Your task to perform on an android device: change the clock style Image 0: 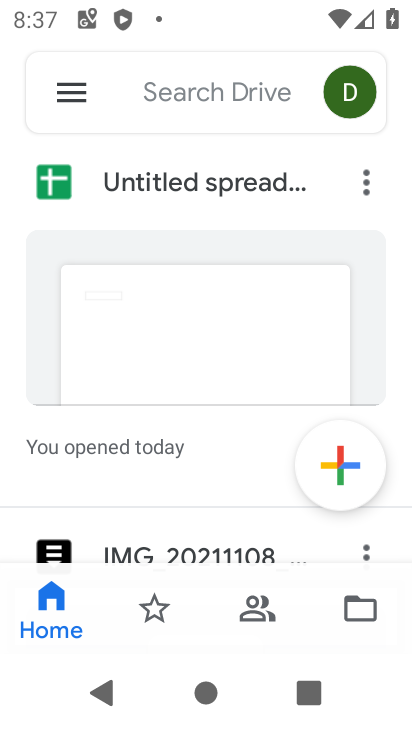
Step 0: press home button
Your task to perform on an android device: change the clock style Image 1: 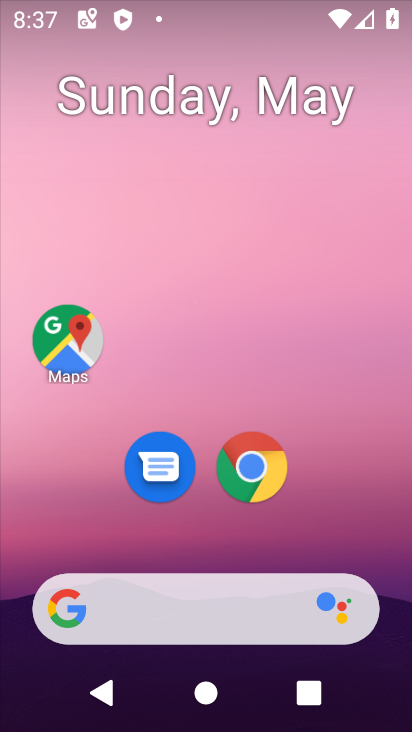
Step 1: drag from (203, 536) to (254, 195)
Your task to perform on an android device: change the clock style Image 2: 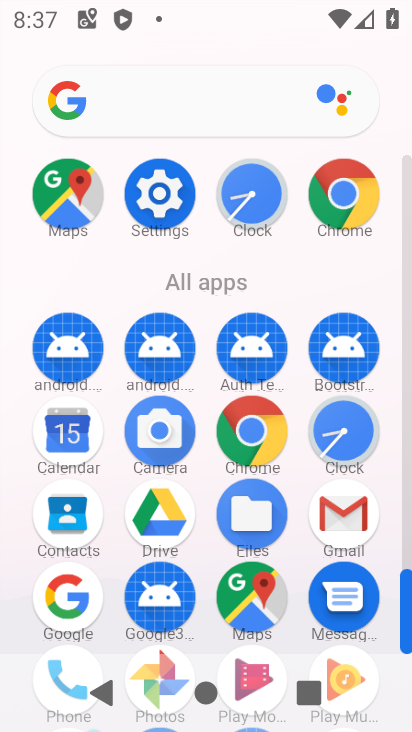
Step 2: click (252, 209)
Your task to perform on an android device: change the clock style Image 3: 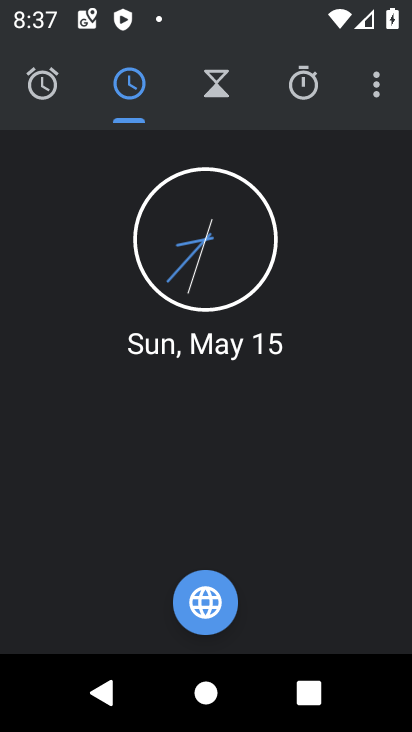
Step 3: click (397, 75)
Your task to perform on an android device: change the clock style Image 4: 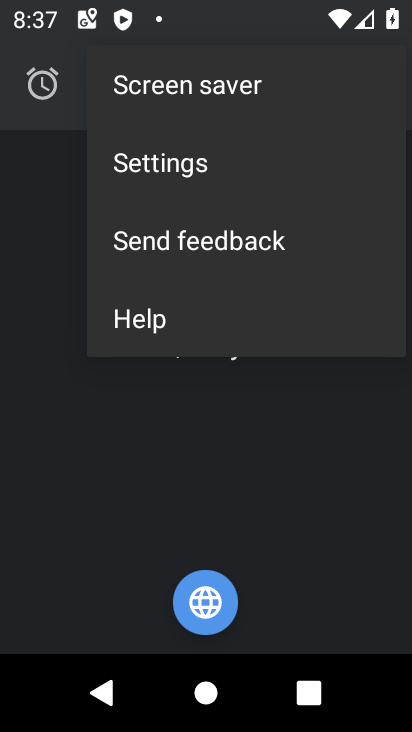
Step 4: click (180, 177)
Your task to perform on an android device: change the clock style Image 5: 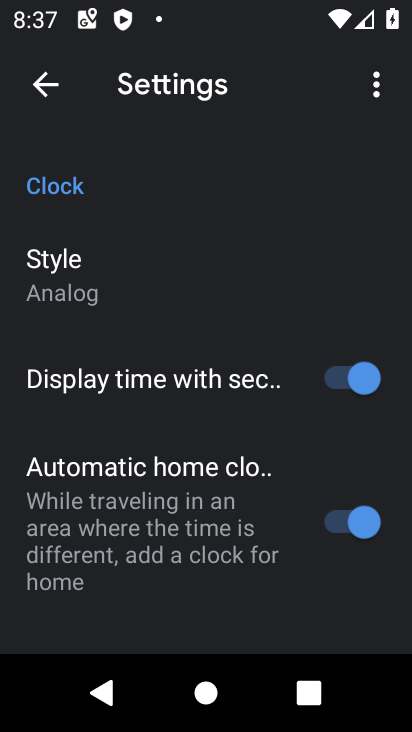
Step 5: click (166, 296)
Your task to perform on an android device: change the clock style Image 6: 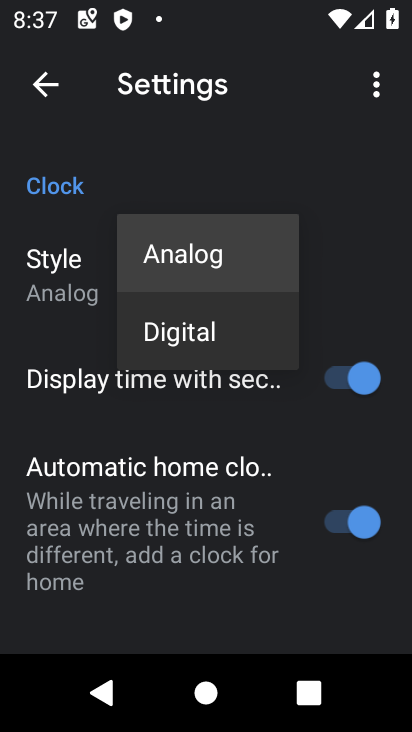
Step 6: click (177, 309)
Your task to perform on an android device: change the clock style Image 7: 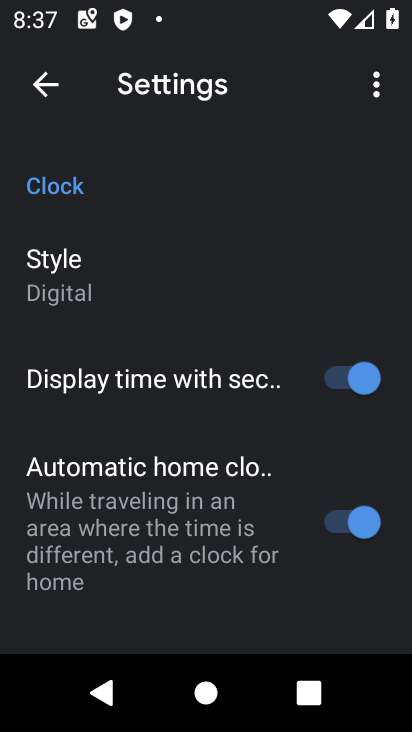
Step 7: task complete